Your task to perform on an android device: turn on airplane mode Image 0: 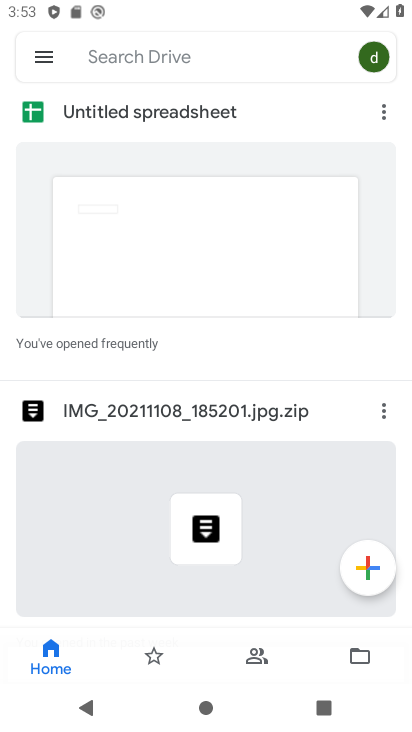
Step 0: press home button
Your task to perform on an android device: turn on airplane mode Image 1: 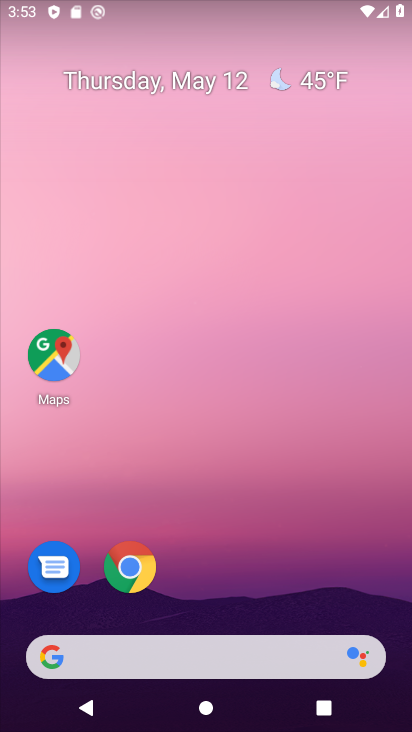
Step 1: drag from (230, 583) to (229, 231)
Your task to perform on an android device: turn on airplane mode Image 2: 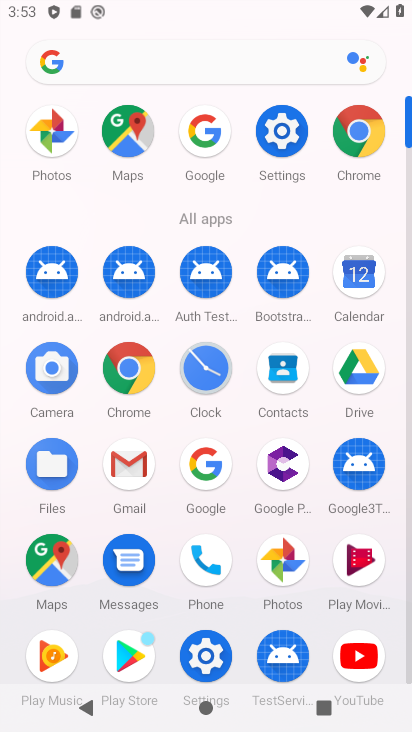
Step 2: click (275, 165)
Your task to perform on an android device: turn on airplane mode Image 3: 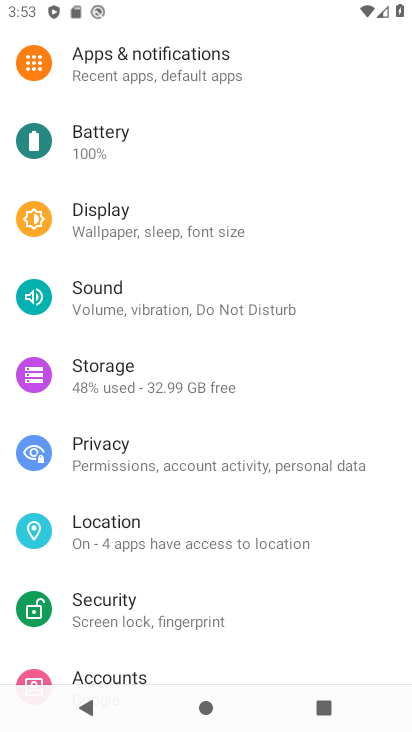
Step 3: drag from (185, 177) to (201, 511)
Your task to perform on an android device: turn on airplane mode Image 4: 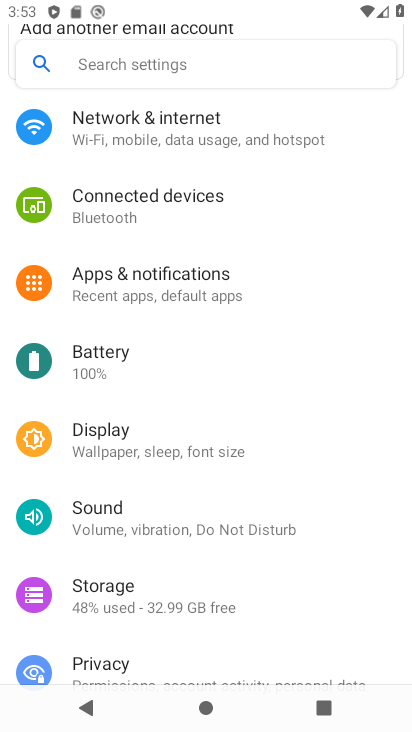
Step 4: click (173, 150)
Your task to perform on an android device: turn on airplane mode Image 5: 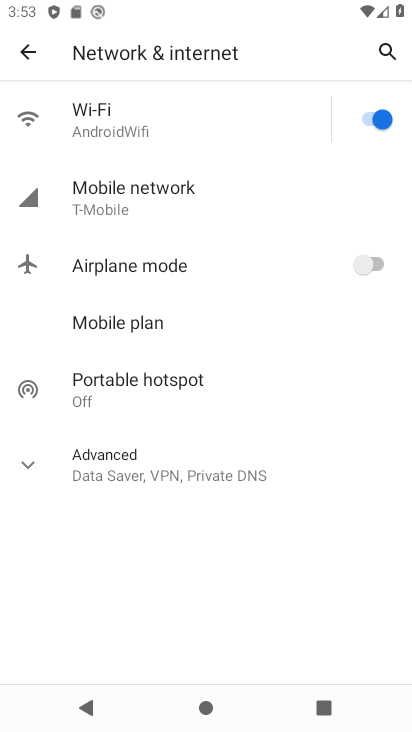
Step 5: click (379, 262)
Your task to perform on an android device: turn on airplane mode Image 6: 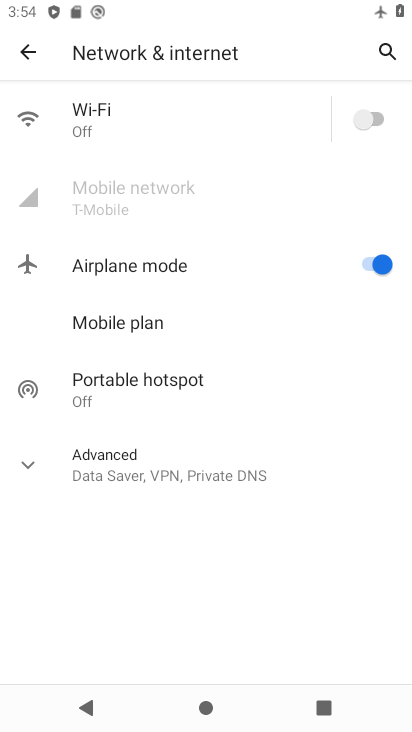
Step 6: task complete